Your task to perform on an android device: Is it going to rain today? Image 0: 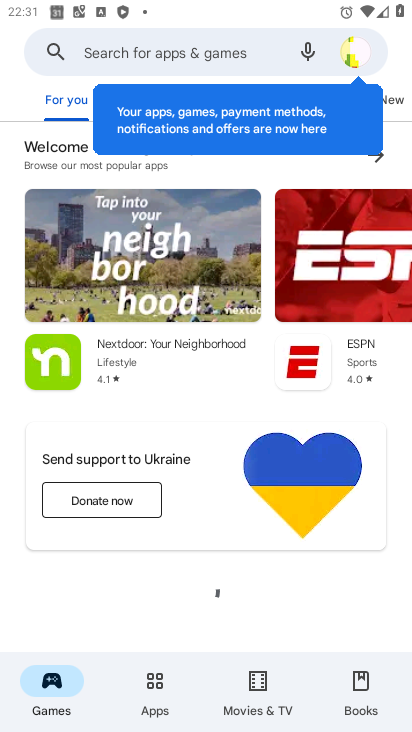
Step 0: press home button
Your task to perform on an android device: Is it going to rain today? Image 1: 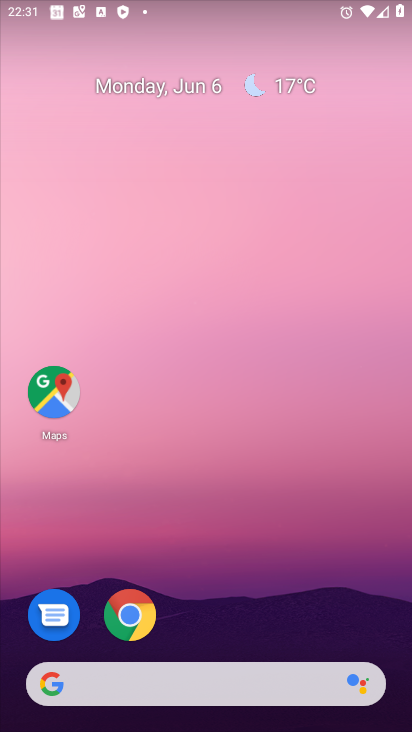
Step 1: click (285, 82)
Your task to perform on an android device: Is it going to rain today? Image 2: 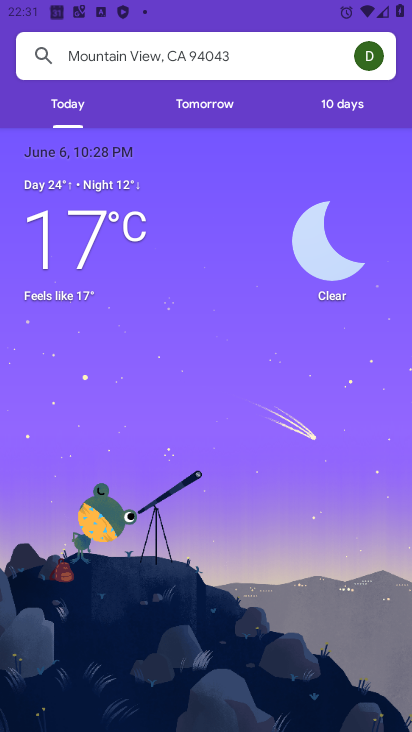
Step 2: task complete